Your task to perform on an android device: open app "Skype" (install if not already installed) Image 0: 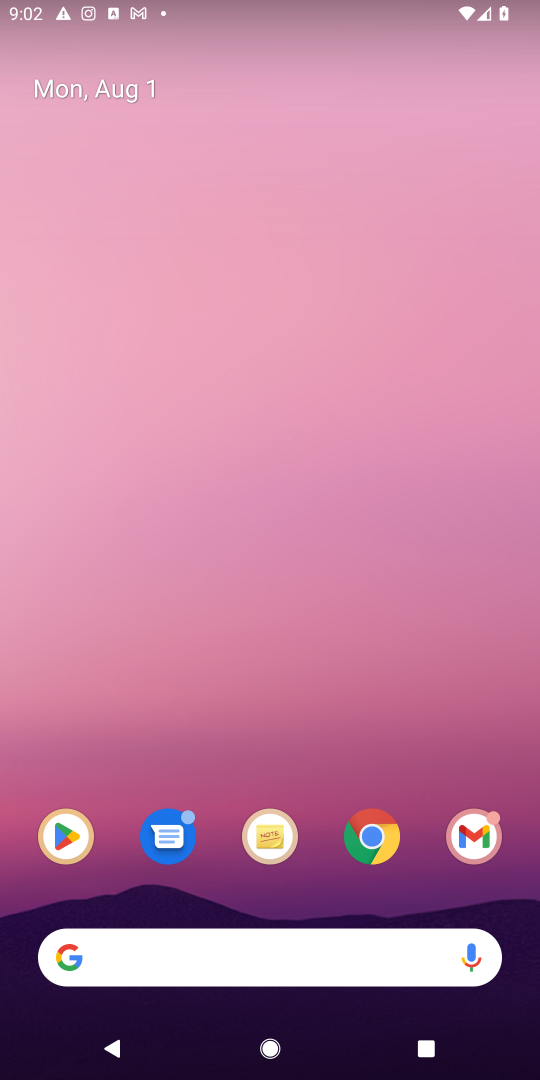
Step 0: press home button
Your task to perform on an android device: open app "Skype" (install if not already installed) Image 1: 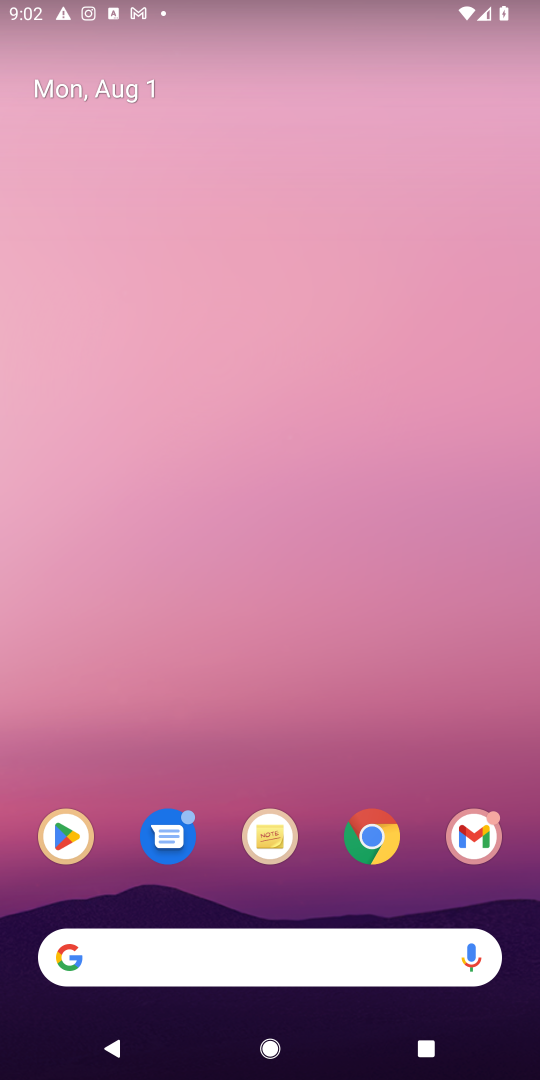
Step 1: click (69, 828)
Your task to perform on an android device: open app "Skype" (install if not already installed) Image 2: 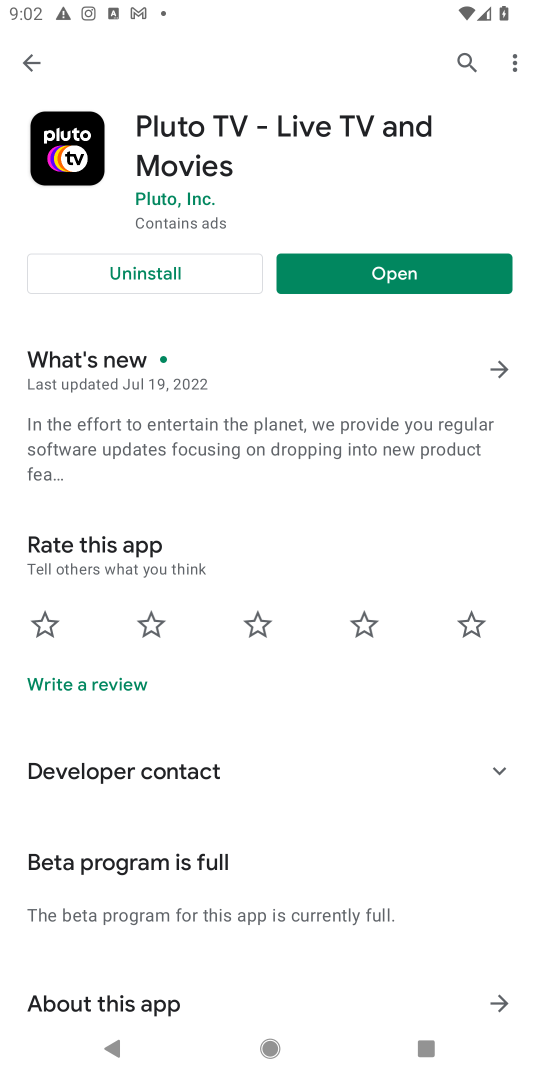
Step 2: click (463, 63)
Your task to perform on an android device: open app "Skype" (install if not already installed) Image 3: 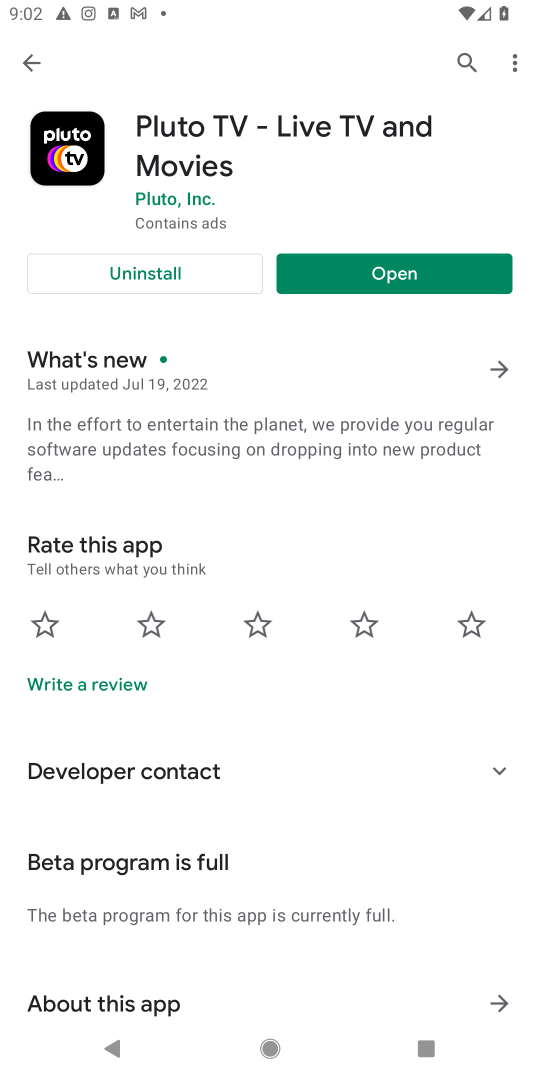
Step 3: press home button
Your task to perform on an android device: open app "Skype" (install if not already installed) Image 4: 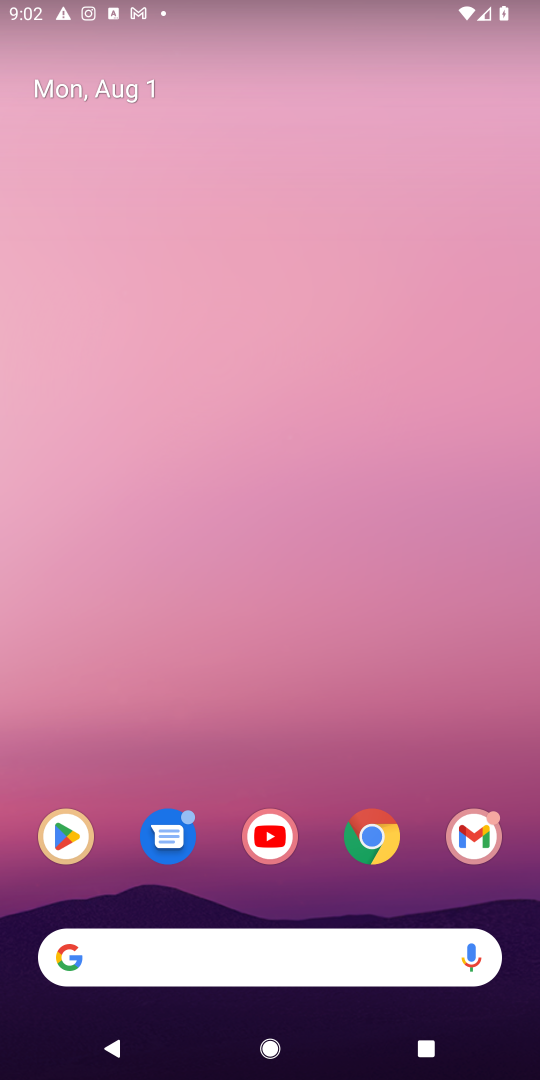
Step 4: click (64, 845)
Your task to perform on an android device: open app "Skype" (install if not already installed) Image 5: 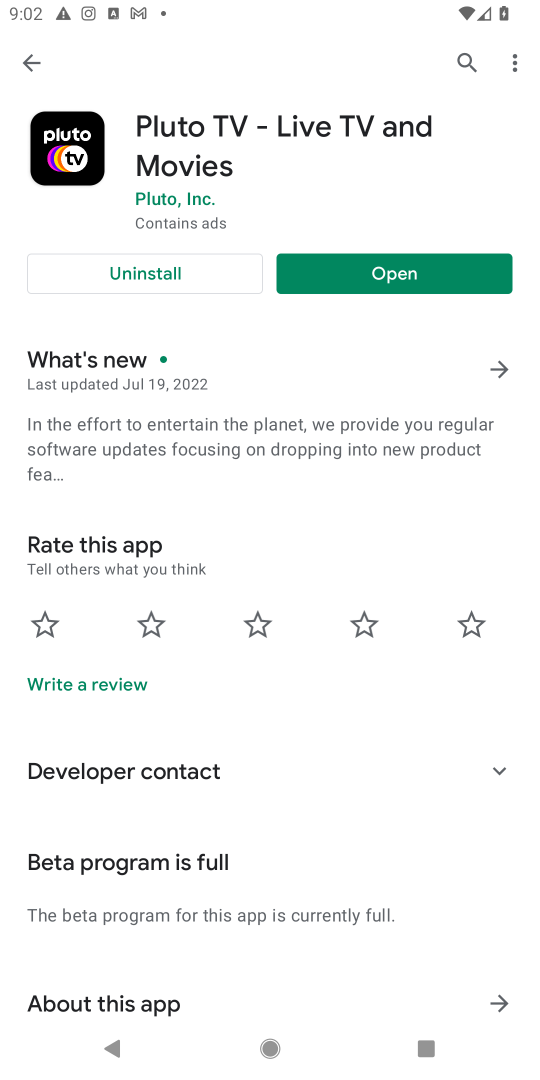
Step 5: click (458, 65)
Your task to perform on an android device: open app "Skype" (install if not already installed) Image 6: 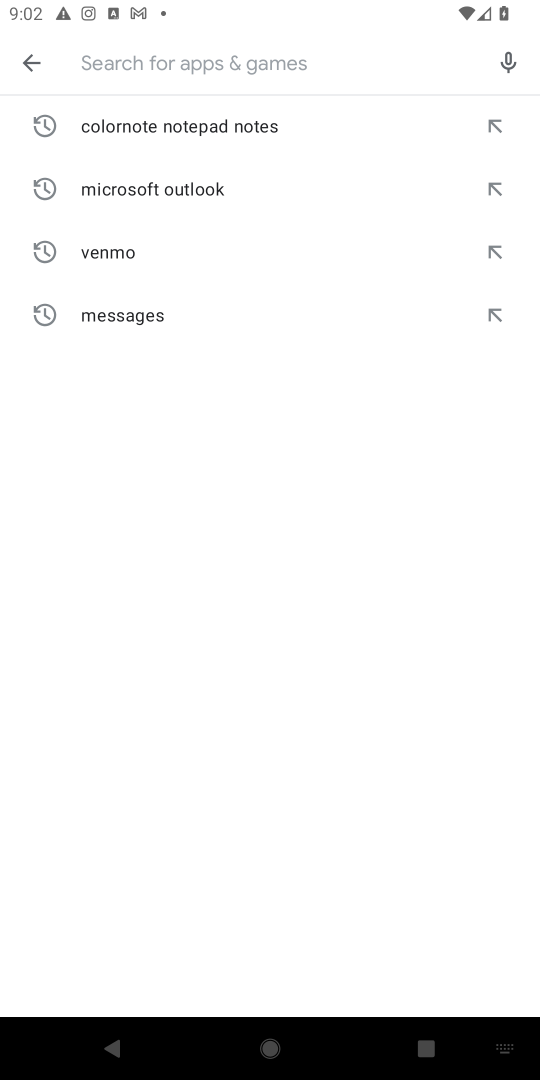
Step 6: type "Skype"
Your task to perform on an android device: open app "Skype" (install if not already installed) Image 7: 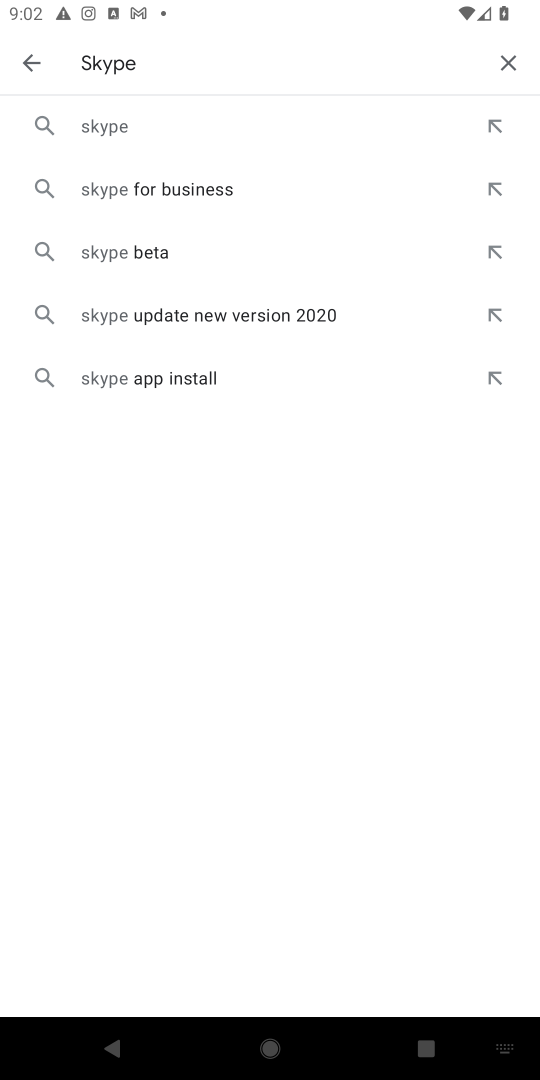
Step 7: click (170, 122)
Your task to perform on an android device: open app "Skype" (install if not already installed) Image 8: 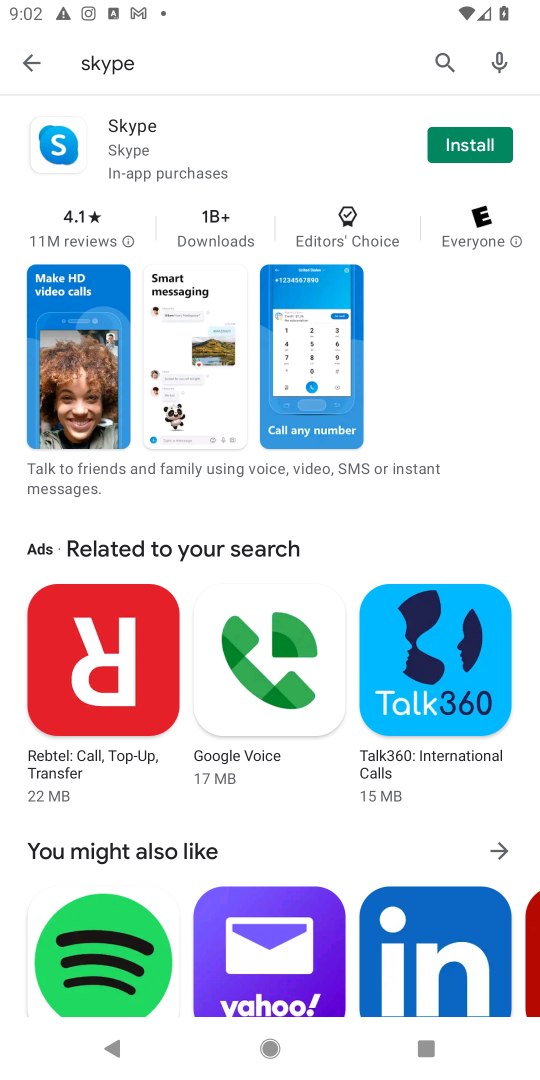
Step 8: click (482, 150)
Your task to perform on an android device: open app "Skype" (install if not already installed) Image 9: 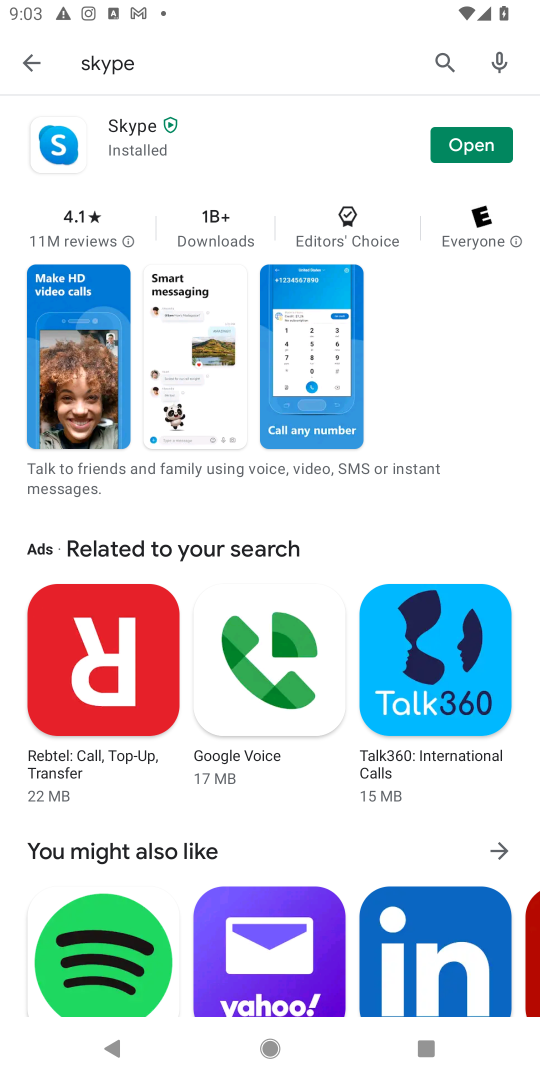
Step 9: click (450, 147)
Your task to perform on an android device: open app "Skype" (install if not already installed) Image 10: 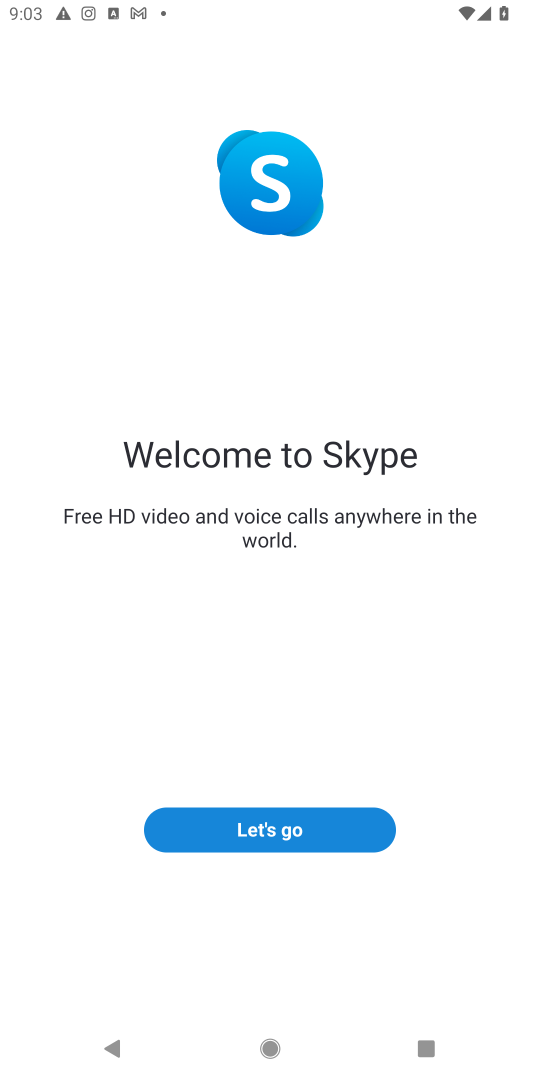
Step 10: task complete